Your task to perform on an android device: open app "DoorDash - Dasher" Image 0: 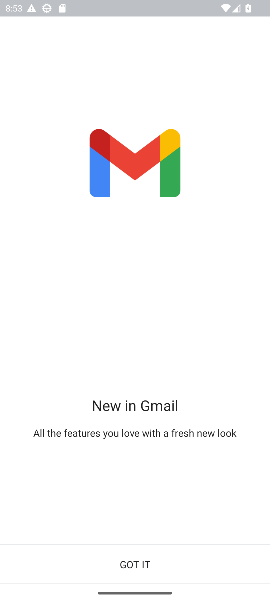
Step 0: press home button
Your task to perform on an android device: open app "DoorDash - Dasher" Image 1: 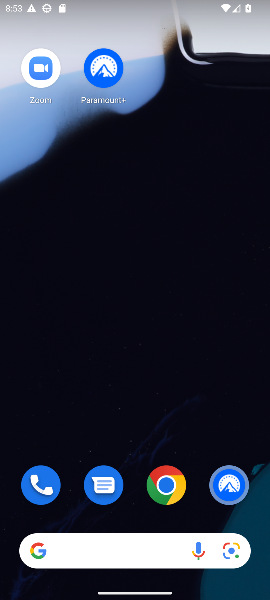
Step 1: drag from (127, 541) to (171, 143)
Your task to perform on an android device: open app "DoorDash - Dasher" Image 2: 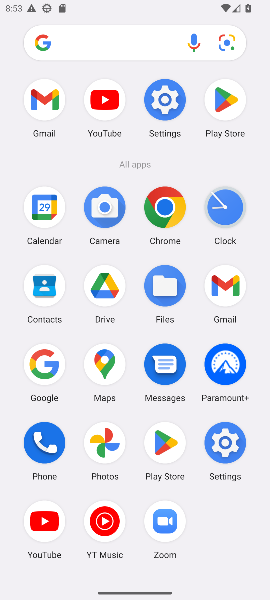
Step 2: click (205, 108)
Your task to perform on an android device: open app "DoorDash - Dasher" Image 3: 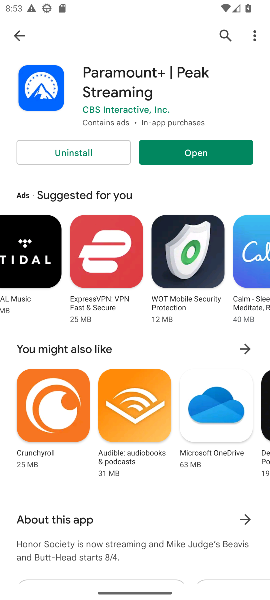
Step 3: click (223, 37)
Your task to perform on an android device: open app "DoorDash - Dasher" Image 4: 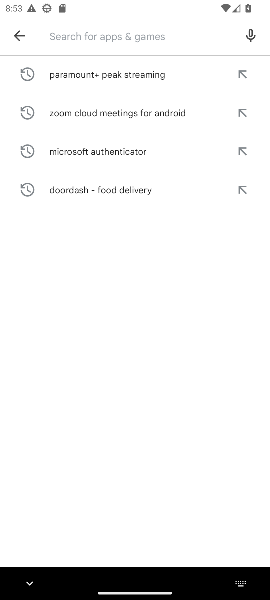
Step 4: type "DoorDash - Dasher"
Your task to perform on an android device: open app "DoorDash - Dasher" Image 5: 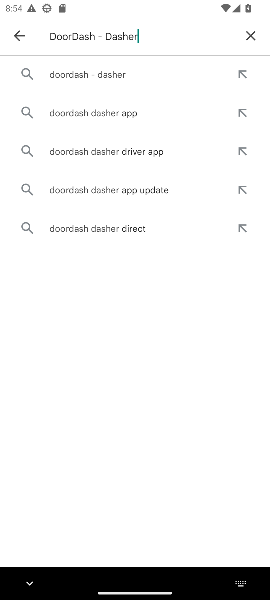
Step 5: click (102, 75)
Your task to perform on an android device: open app "DoorDash - Dasher" Image 6: 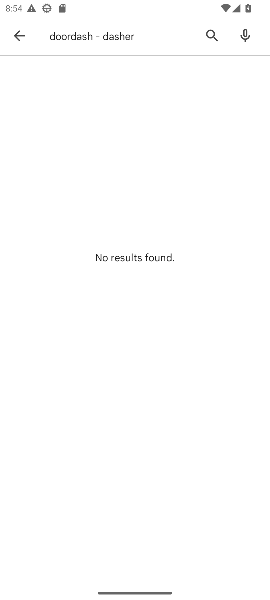
Step 6: task complete